Your task to perform on an android device: Is it going to rain today? Image 0: 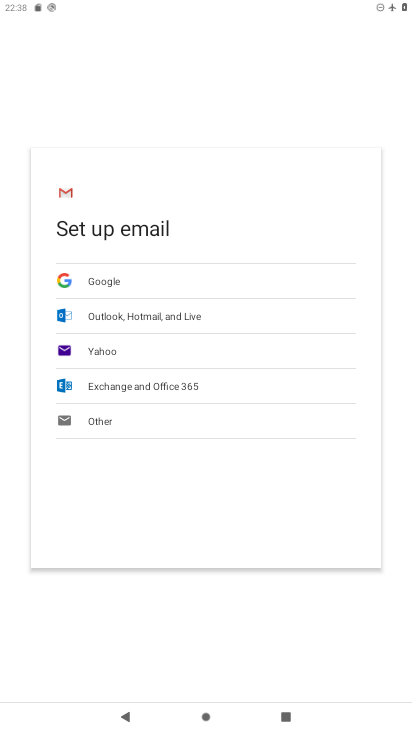
Step 0: drag from (306, 606) to (232, 116)
Your task to perform on an android device: Is it going to rain today? Image 1: 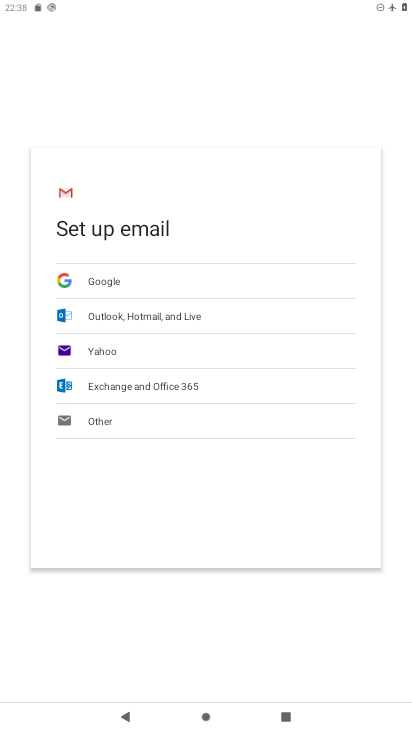
Step 1: press home button
Your task to perform on an android device: Is it going to rain today? Image 2: 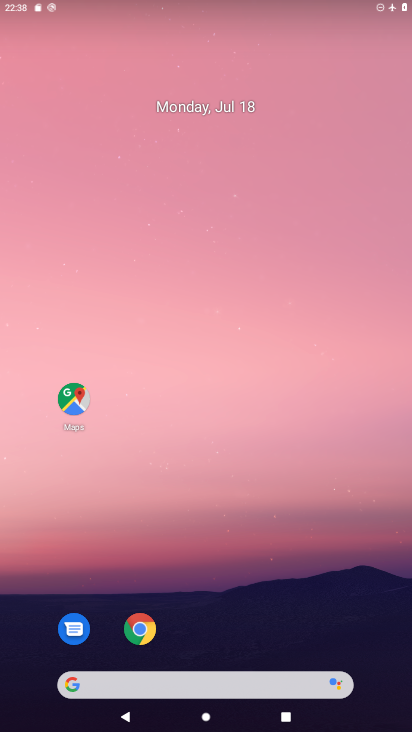
Step 2: drag from (319, 524) to (262, 141)
Your task to perform on an android device: Is it going to rain today? Image 3: 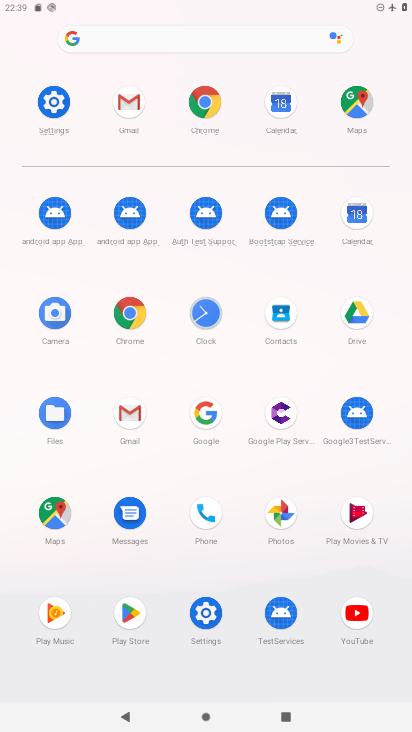
Step 3: click (202, 107)
Your task to perform on an android device: Is it going to rain today? Image 4: 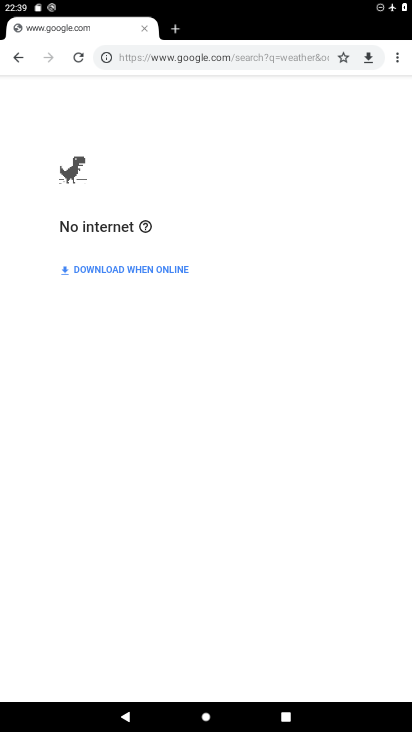
Step 4: click (228, 45)
Your task to perform on an android device: Is it going to rain today? Image 5: 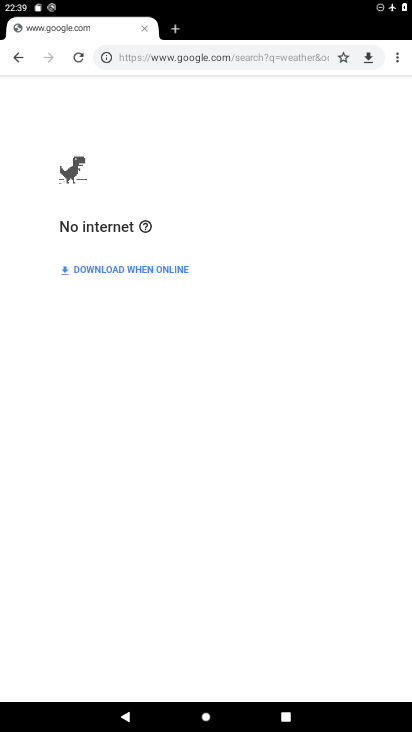
Step 5: click (228, 53)
Your task to perform on an android device: Is it going to rain today? Image 6: 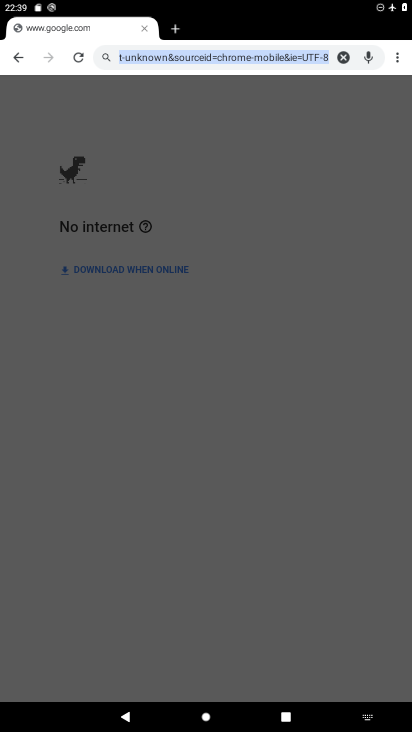
Step 6: type "weather"
Your task to perform on an android device: Is it going to rain today? Image 7: 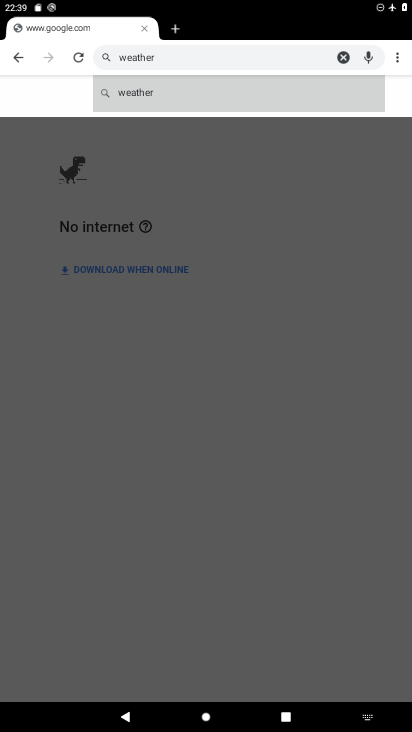
Step 7: click (151, 97)
Your task to perform on an android device: Is it going to rain today? Image 8: 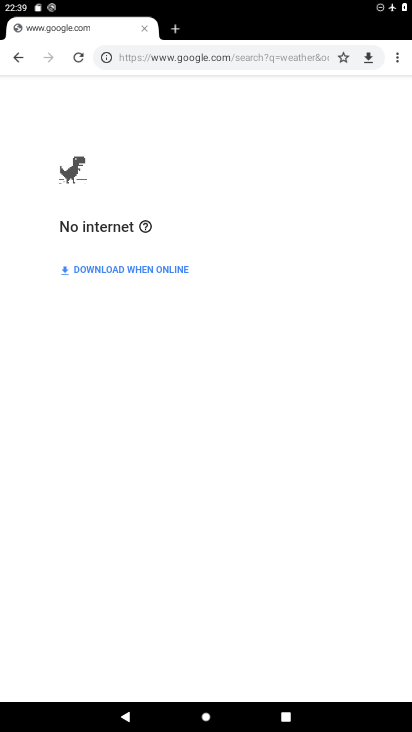
Step 8: task complete